Your task to perform on an android device: Open accessibility settings Image 0: 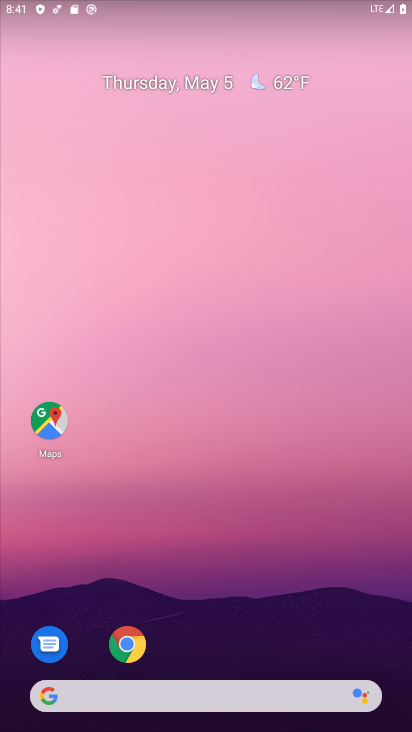
Step 0: drag from (311, 596) to (362, 43)
Your task to perform on an android device: Open accessibility settings Image 1: 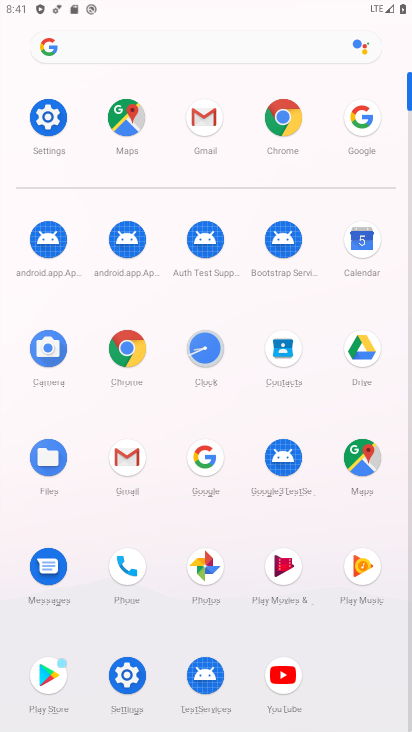
Step 1: click (47, 123)
Your task to perform on an android device: Open accessibility settings Image 2: 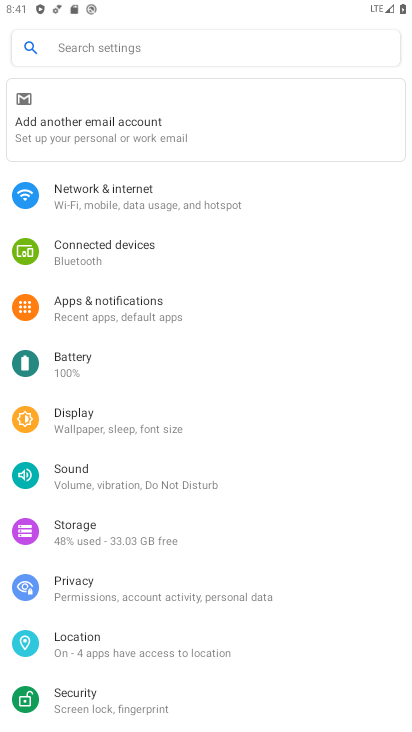
Step 2: drag from (150, 646) to (205, 243)
Your task to perform on an android device: Open accessibility settings Image 3: 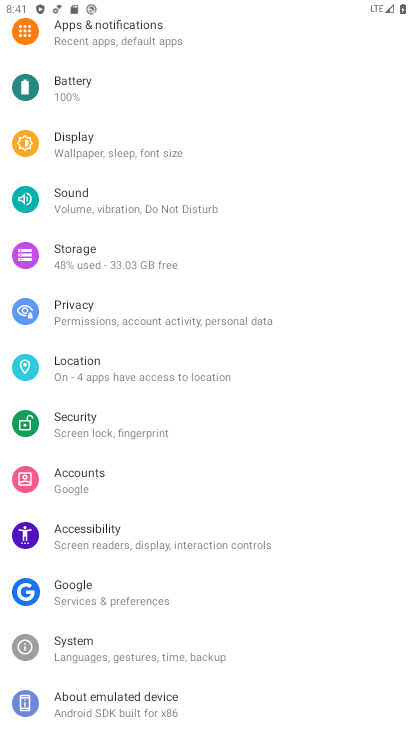
Step 3: click (133, 541)
Your task to perform on an android device: Open accessibility settings Image 4: 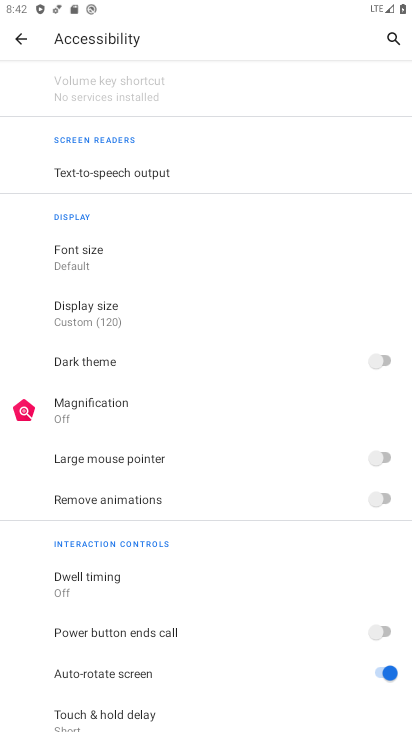
Step 4: task complete